Your task to perform on an android device: Open the calendar and show me this week's events Image 0: 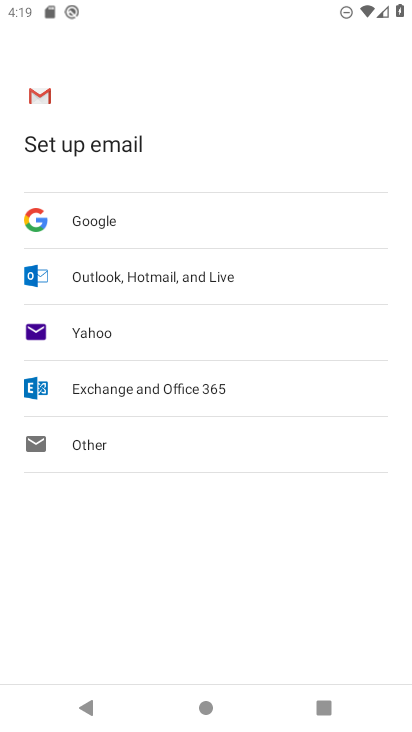
Step 0: press home button
Your task to perform on an android device: Open the calendar and show me this week's events Image 1: 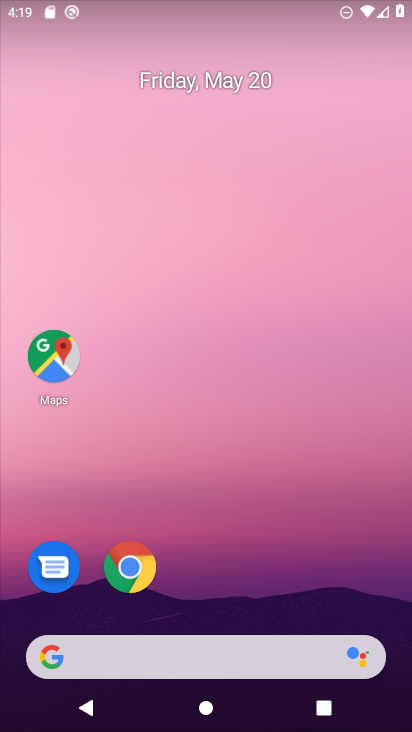
Step 1: drag from (219, 717) to (231, 309)
Your task to perform on an android device: Open the calendar and show me this week's events Image 2: 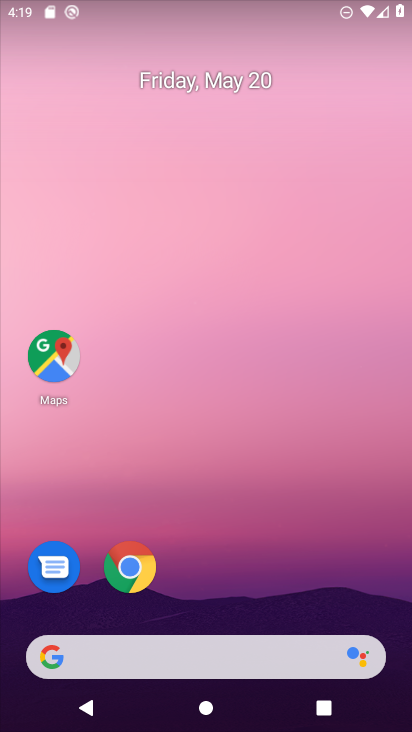
Step 2: drag from (237, 726) to (232, 302)
Your task to perform on an android device: Open the calendar and show me this week's events Image 3: 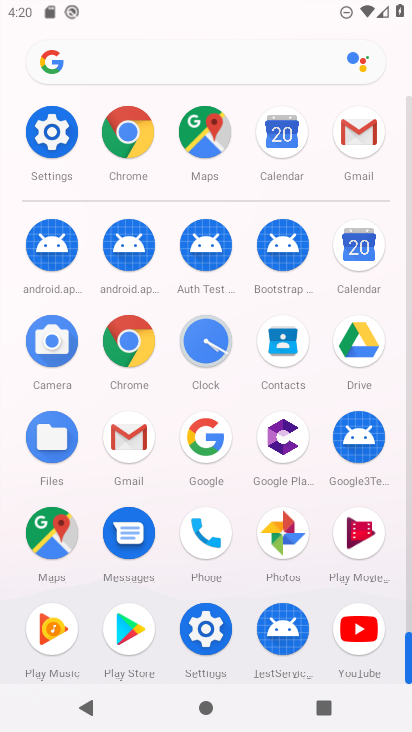
Step 3: click (358, 243)
Your task to perform on an android device: Open the calendar and show me this week's events Image 4: 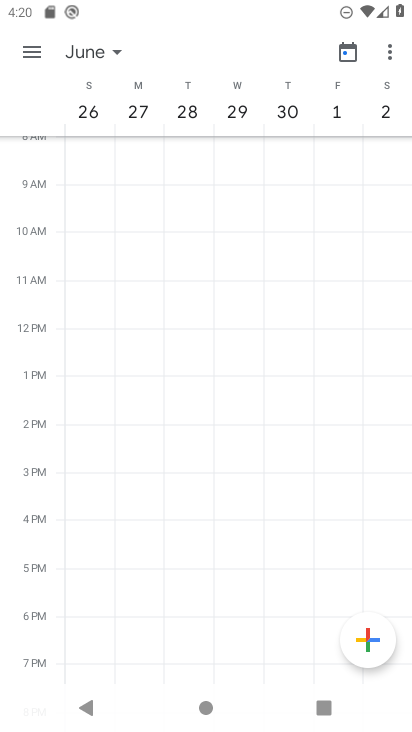
Step 4: click (117, 50)
Your task to perform on an android device: Open the calendar and show me this week's events Image 5: 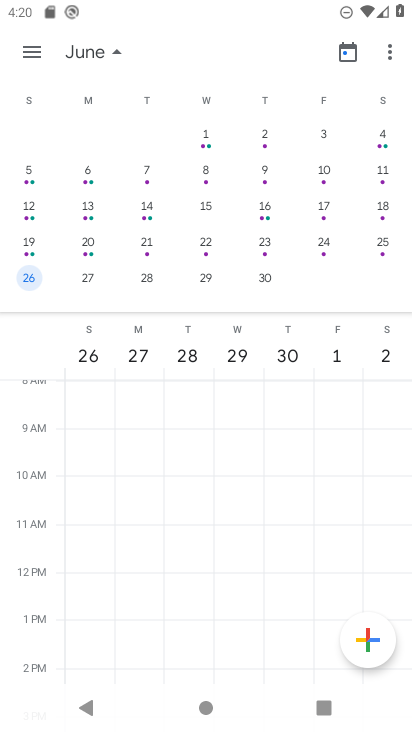
Step 5: drag from (27, 242) to (402, 236)
Your task to perform on an android device: Open the calendar and show me this week's events Image 6: 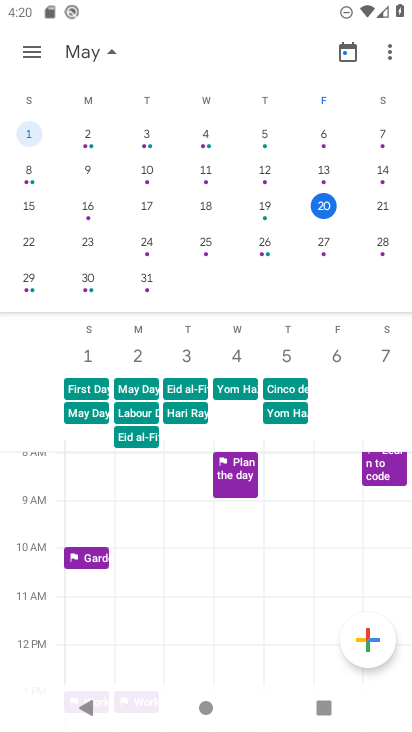
Step 6: click (32, 51)
Your task to perform on an android device: Open the calendar and show me this week's events Image 7: 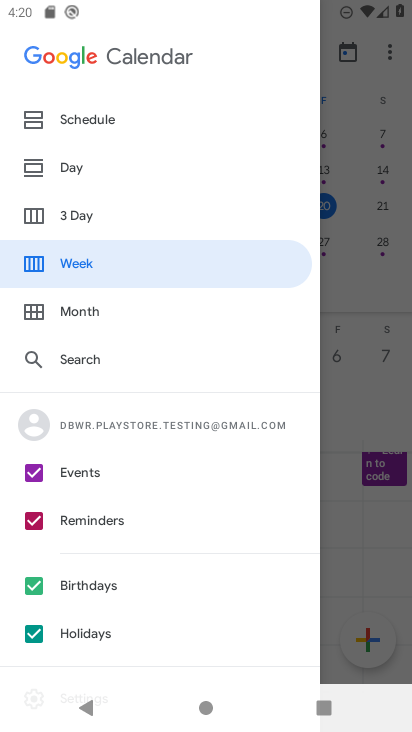
Step 7: click (87, 267)
Your task to perform on an android device: Open the calendar and show me this week's events Image 8: 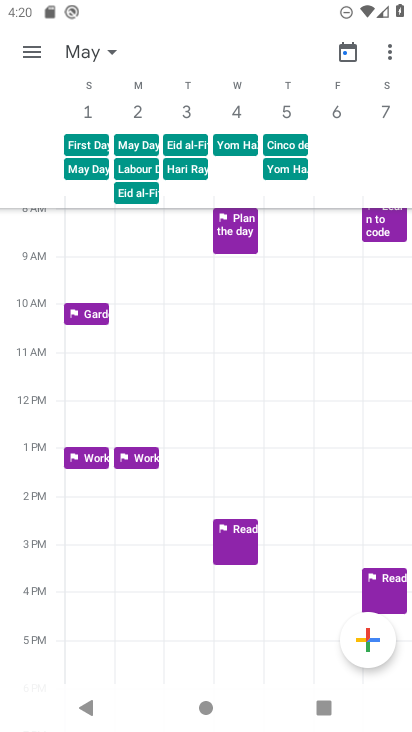
Step 8: task complete